Your task to perform on an android device: change your default location settings in chrome Image 0: 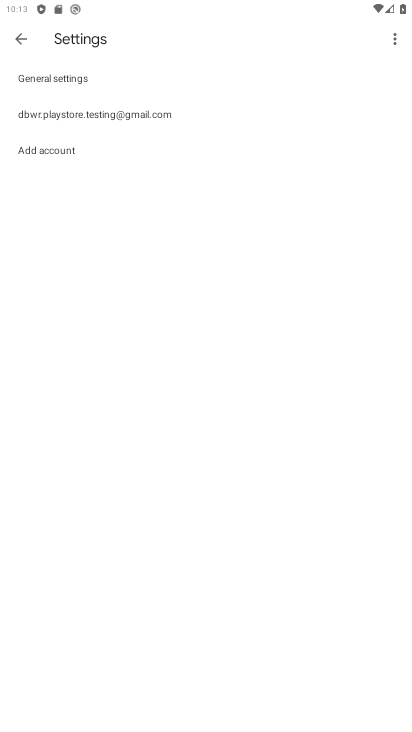
Step 0: press home button
Your task to perform on an android device: change your default location settings in chrome Image 1: 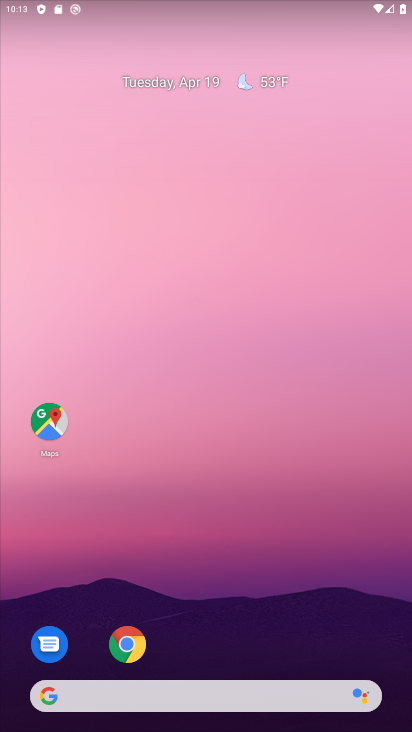
Step 1: click (127, 644)
Your task to perform on an android device: change your default location settings in chrome Image 2: 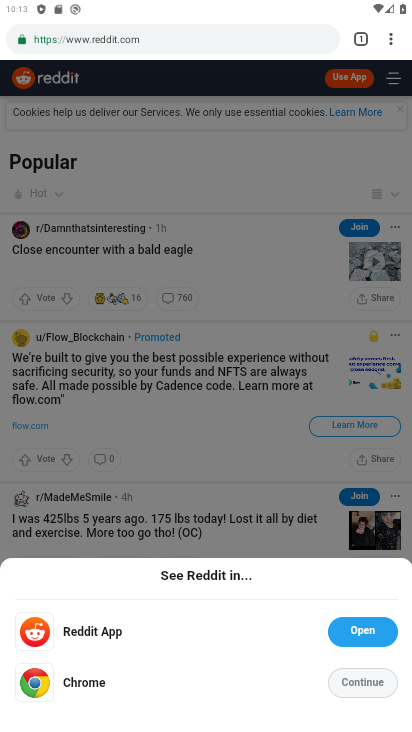
Step 2: click (389, 29)
Your task to perform on an android device: change your default location settings in chrome Image 3: 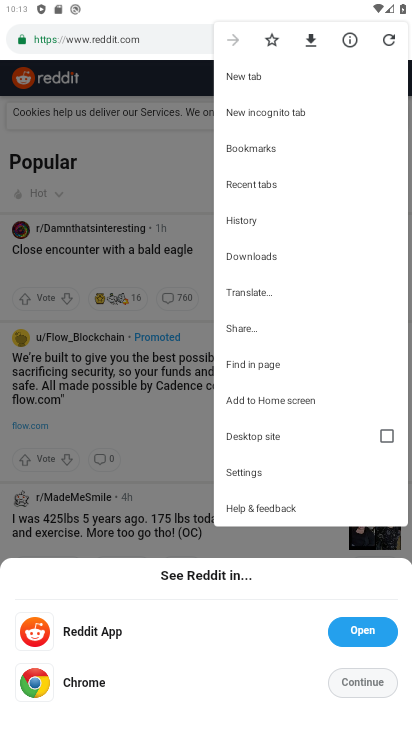
Step 3: click (240, 467)
Your task to perform on an android device: change your default location settings in chrome Image 4: 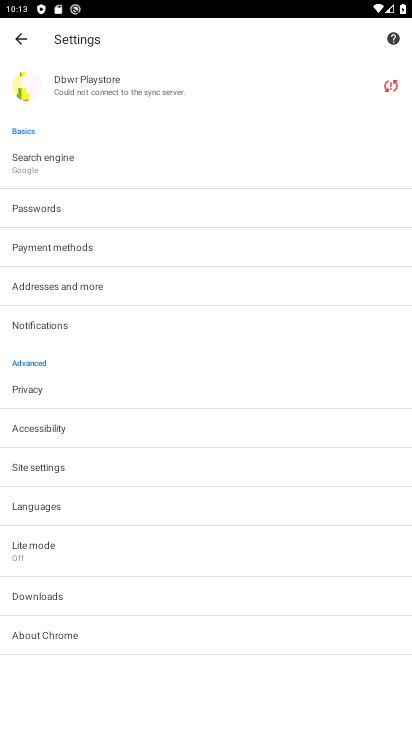
Step 4: click (82, 465)
Your task to perform on an android device: change your default location settings in chrome Image 5: 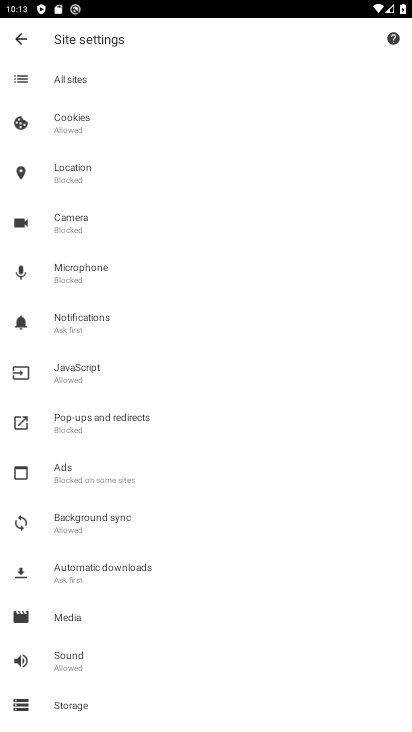
Step 5: click (119, 173)
Your task to perform on an android device: change your default location settings in chrome Image 6: 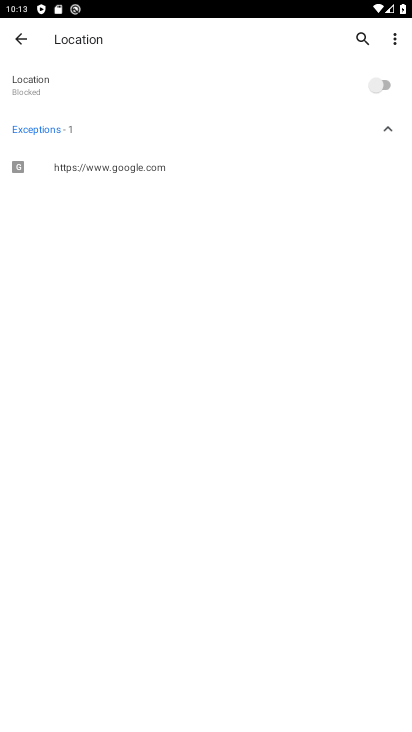
Step 6: click (379, 85)
Your task to perform on an android device: change your default location settings in chrome Image 7: 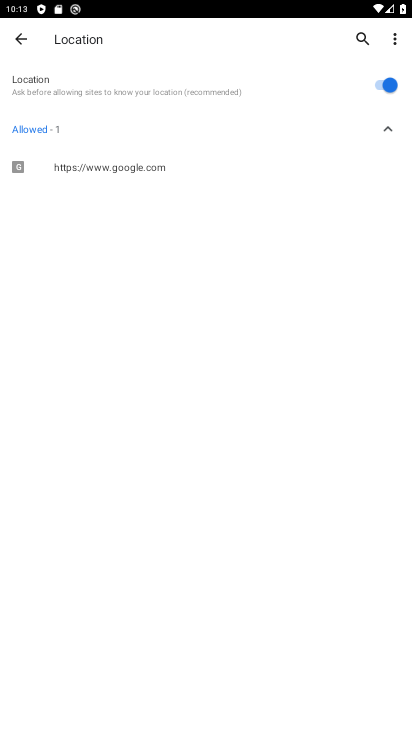
Step 7: task complete